Your task to perform on an android device: Set the phone to "Do not disturb". Image 0: 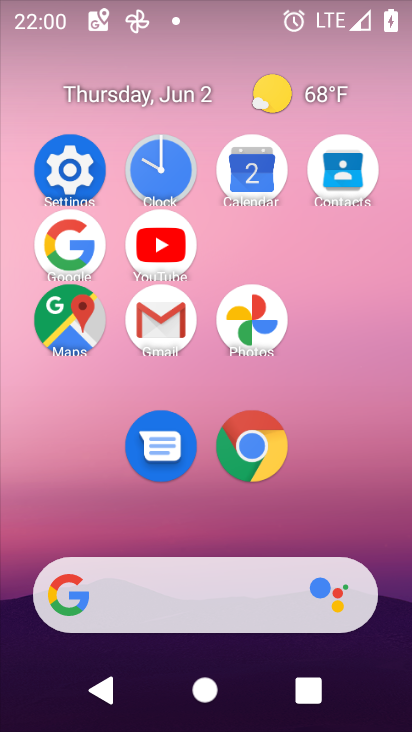
Step 0: click (97, 154)
Your task to perform on an android device: Set the phone to "Do not disturb". Image 1: 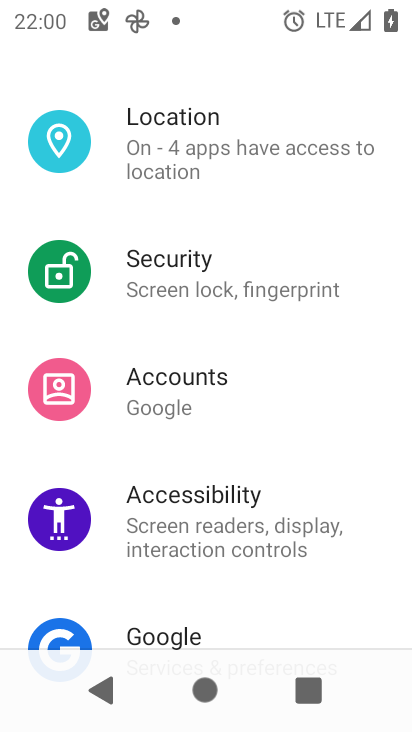
Step 1: drag from (252, 254) to (298, 729)
Your task to perform on an android device: Set the phone to "Do not disturb". Image 2: 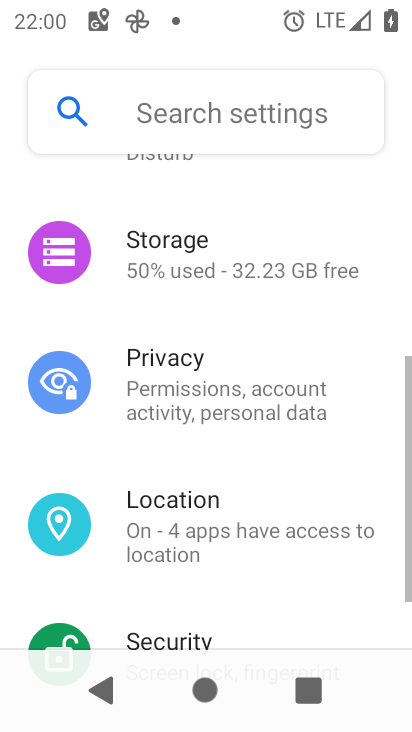
Step 2: drag from (304, 201) to (301, 547)
Your task to perform on an android device: Set the phone to "Do not disturb". Image 3: 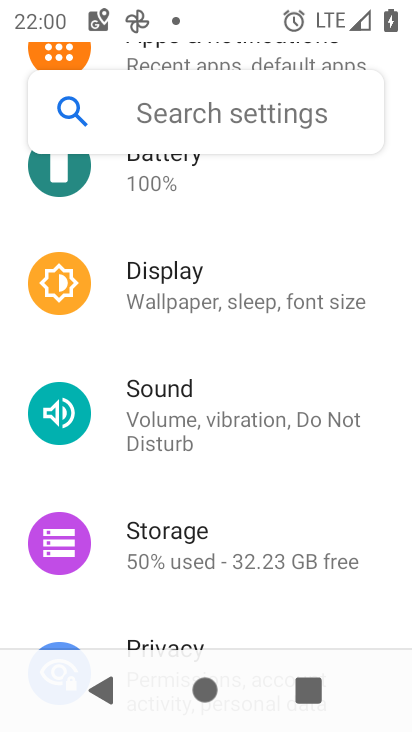
Step 3: drag from (255, 214) to (250, 572)
Your task to perform on an android device: Set the phone to "Do not disturb". Image 4: 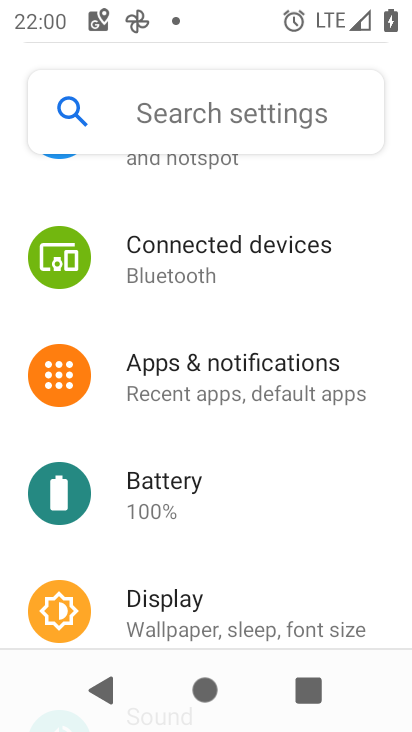
Step 4: drag from (320, 239) to (314, 567)
Your task to perform on an android device: Set the phone to "Do not disturb". Image 5: 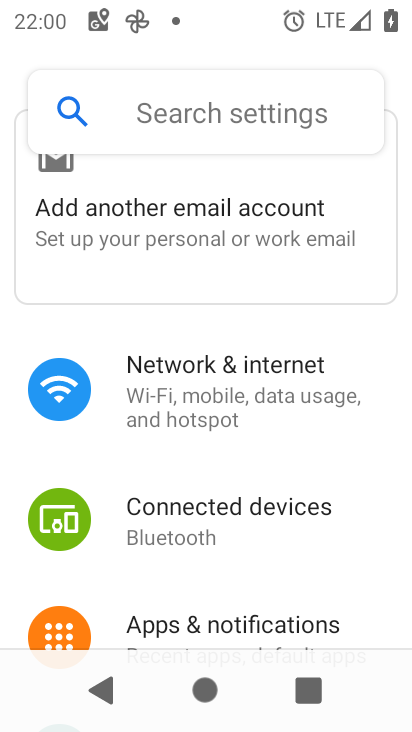
Step 5: drag from (314, 567) to (338, 188)
Your task to perform on an android device: Set the phone to "Do not disturb". Image 6: 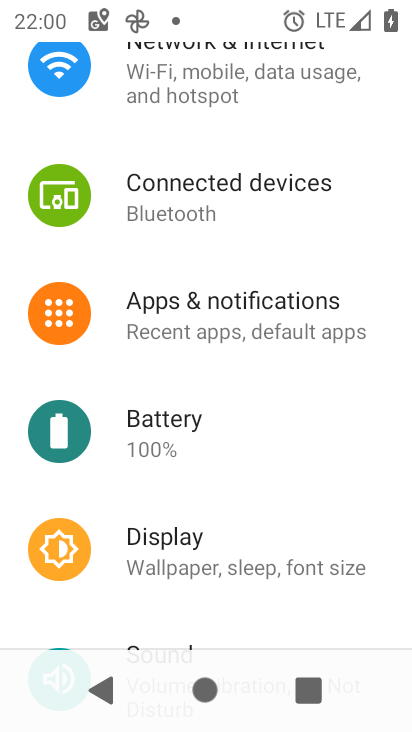
Step 6: drag from (288, 585) to (313, 230)
Your task to perform on an android device: Set the phone to "Do not disturb". Image 7: 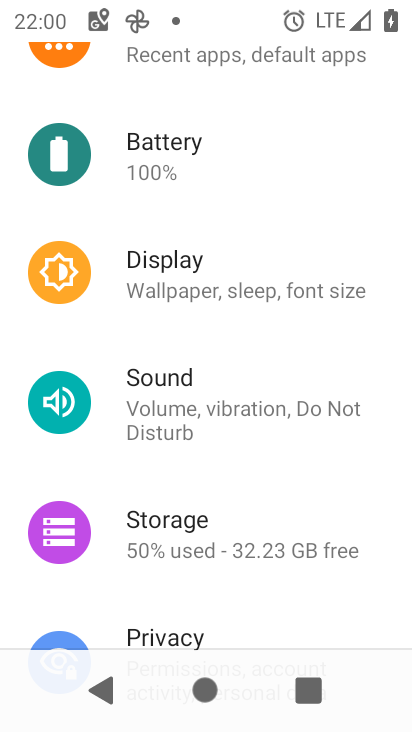
Step 7: click (282, 420)
Your task to perform on an android device: Set the phone to "Do not disturb". Image 8: 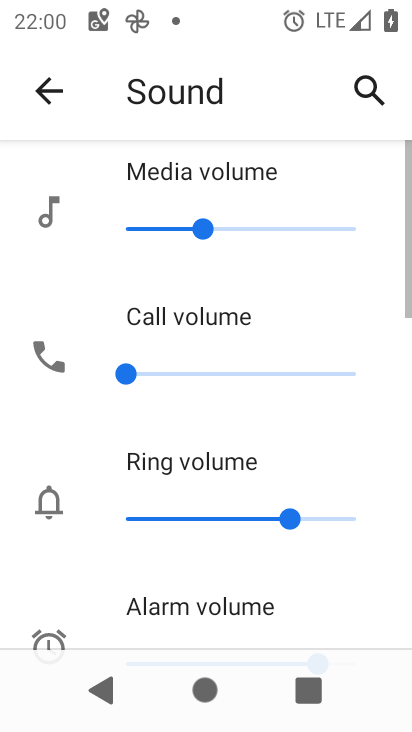
Step 8: drag from (314, 605) to (332, 223)
Your task to perform on an android device: Set the phone to "Do not disturb". Image 9: 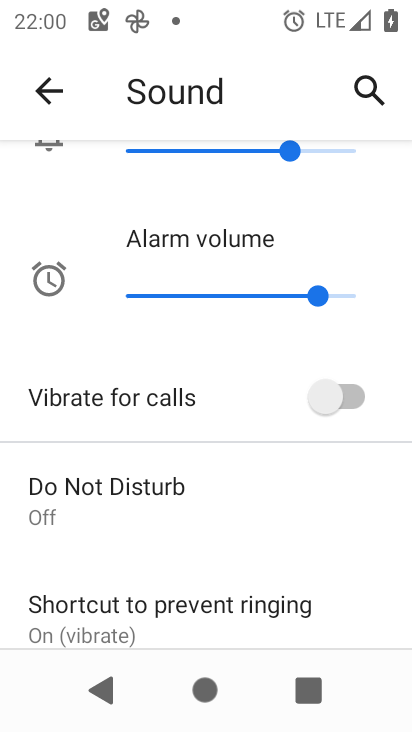
Step 9: click (273, 498)
Your task to perform on an android device: Set the phone to "Do not disturb". Image 10: 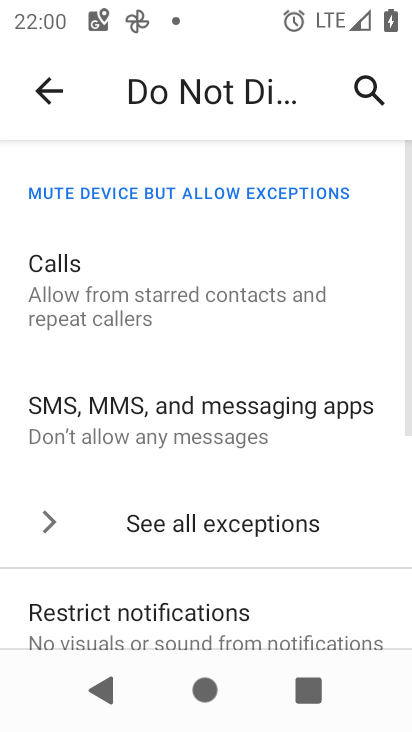
Step 10: drag from (273, 498) to (277, 113)
Your task to perform on an android device: Set the phone to "Do not disturb". Image 11: 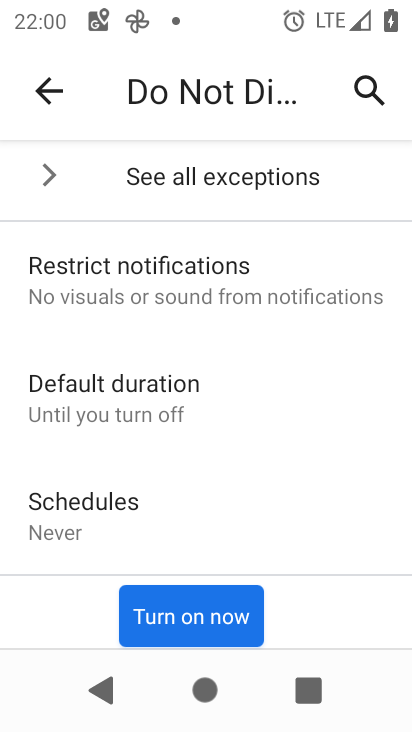
Step 11: drag from (217, 528) to (244, 205)
Your task to perform on an android device: Set the phone to "Do not disturb". Image 12: 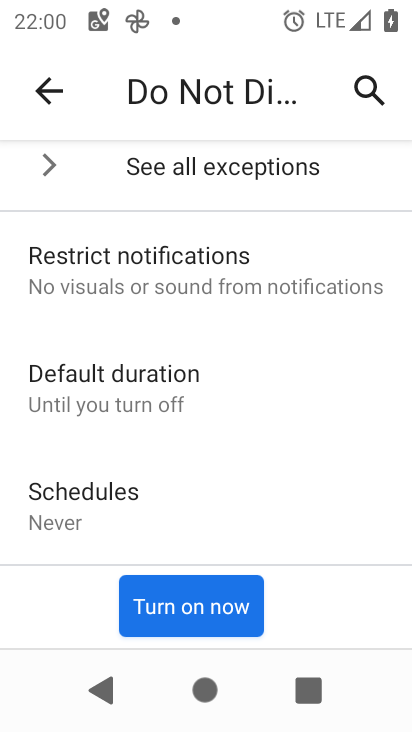
Step 12: click (240, 618)
Your task to perform on an android device: Set the phone to "Do not disturb". Image 13: 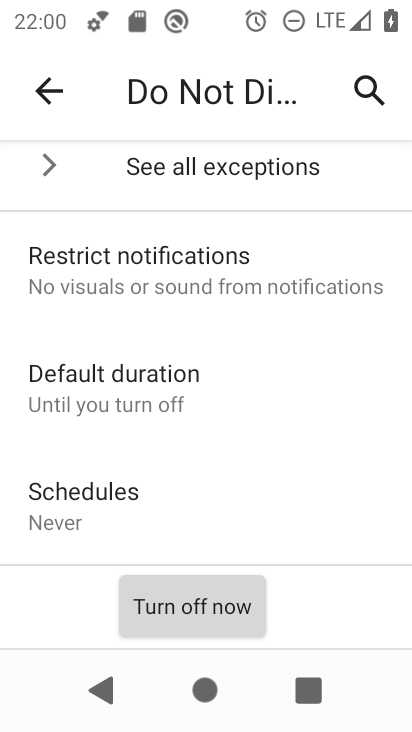
Step 13: task complete